Your task to perform on an android device: Is it going to rain this weekend? Image 0: 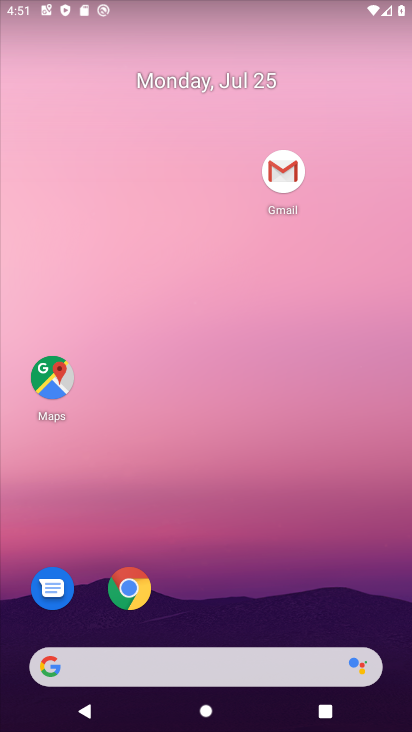
Step 0: drag from (354, 533) to (245, 25)
Your task to perform on an android device: Is it going to rain this weekend? Image 1: 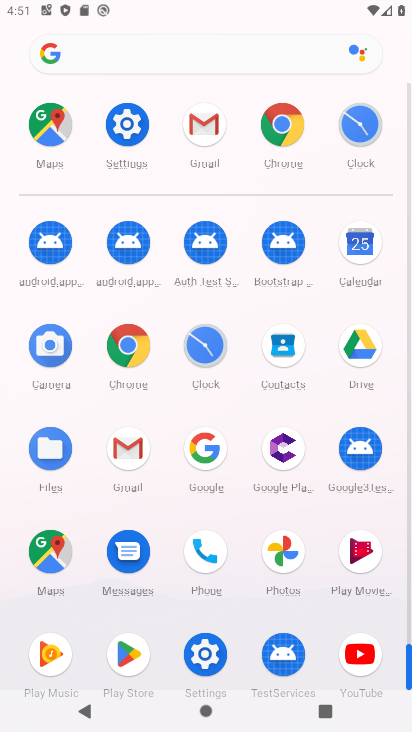
Step 1: click (277, 120)
Your task to perform on an android device: Is it going to rain this weekend? Image 2: 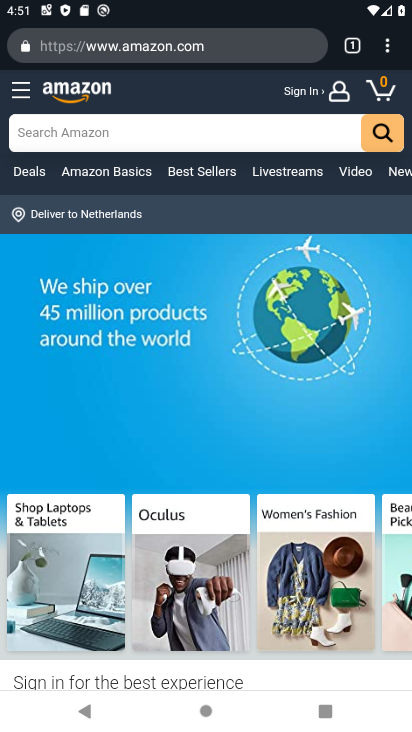
Step 2: click (231, 45)
Your task to perform on an android device: Is it going to rain this weekend? Image 3: 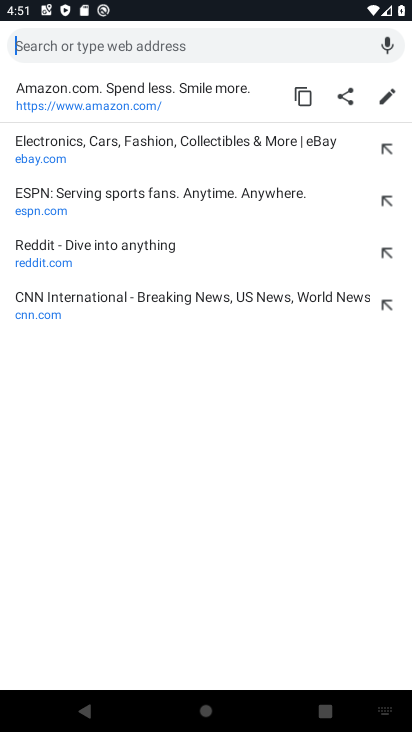
Step 3: type "weather weekend"
Your task to perform on an android device: Is it going to rain this weekend? Image 4: 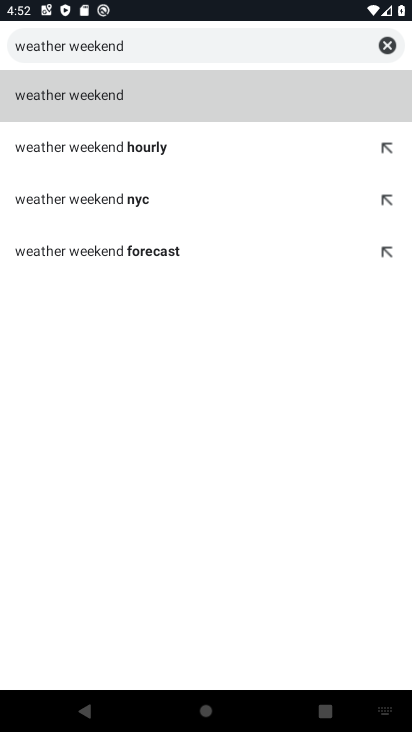
Step 4: click (150, 101)
Your task to perform on an android device: Is it going to rain this weekend? Image 5: 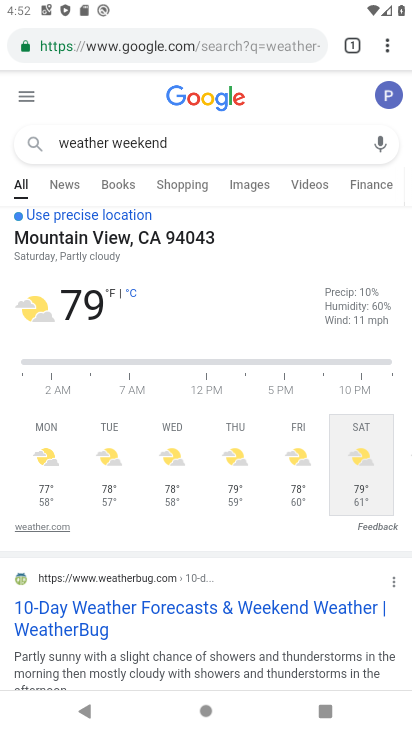
Step 5: task complete